Your task to perform on an android device: search for starred emails in the gmail app Image 0: 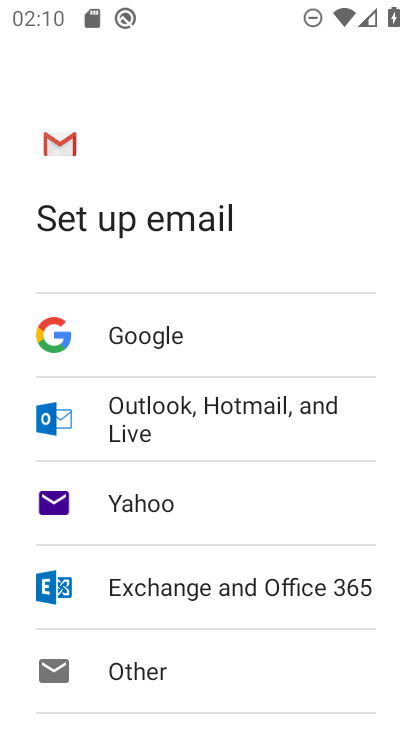
Step 0: press back button
Your task to perform on an android device: search for starred emails in the gmail app Image 1: 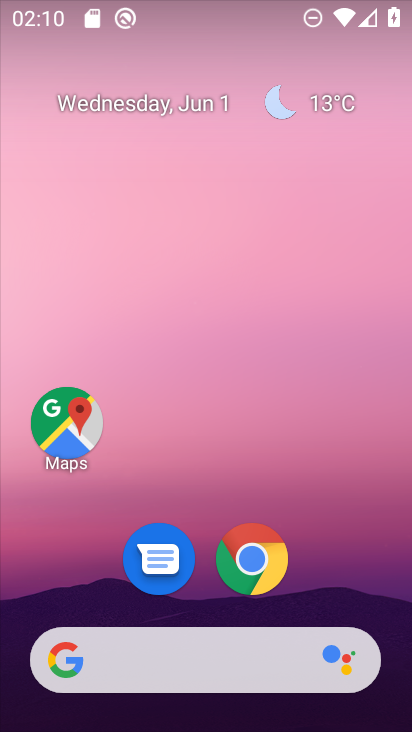
Step 1: drag from (392, 681) to (321, 71)
Your task to perform on an android device: search for starred emails in the gmail app Image 2: 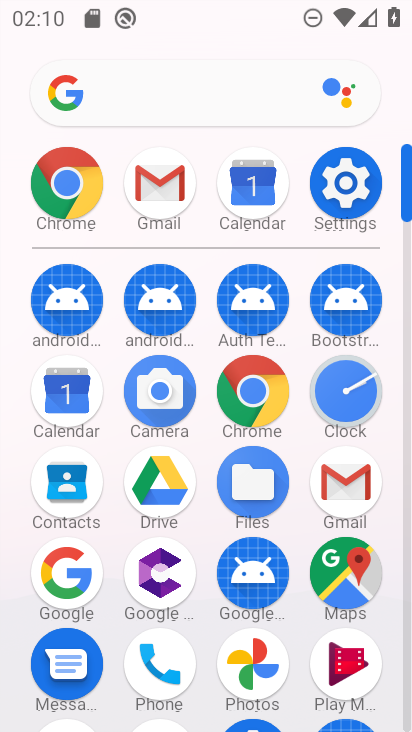
Step 2: click (334, 482)
Your task to perform on an android device: search for starred emails in the gmail app Image 3: 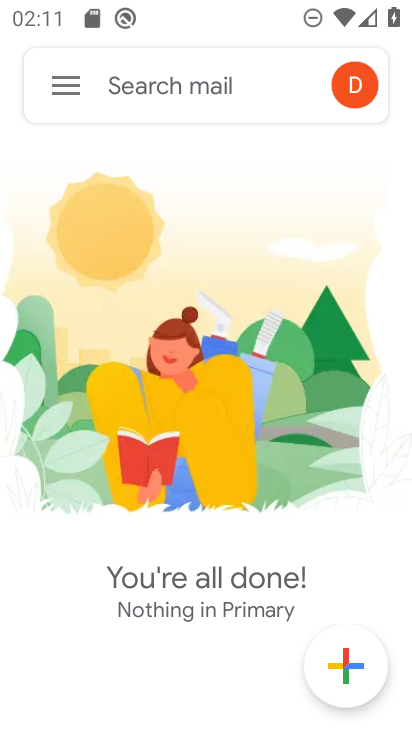
Step 3: click (66, 91)
Your task to perform on an android device: search for starred emails in the gmail app Image 4: 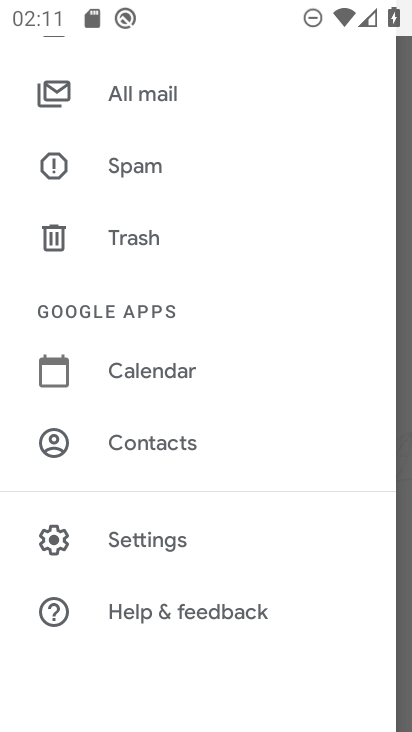
Step 4: drag from (255, 107) to (264, 675)
Your task to perform on an android device: search for starred emails in the gmail app Image 5: 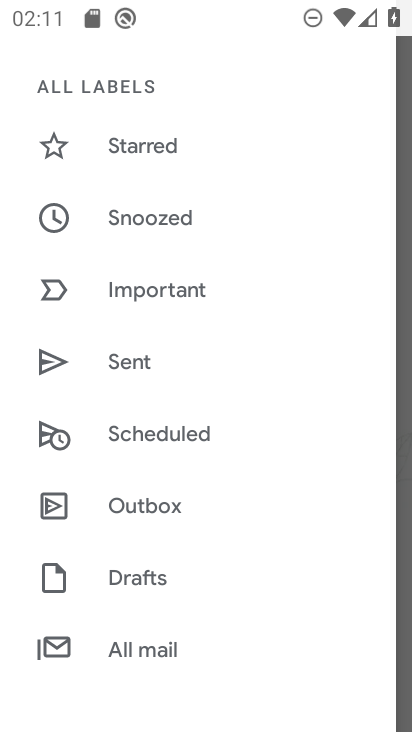
Step 5: click (131, 134)
Your task to perform on an android device: search for starred emails in the gmail app Image 6: 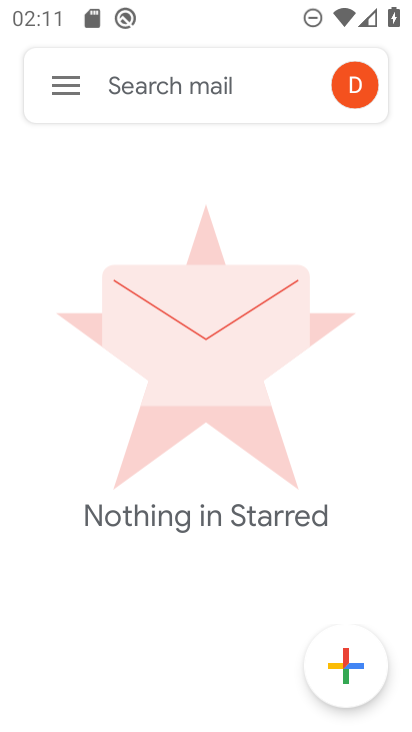
Step 6: task complete